Your task to perform on an android device: set the stopwatch Image 0: 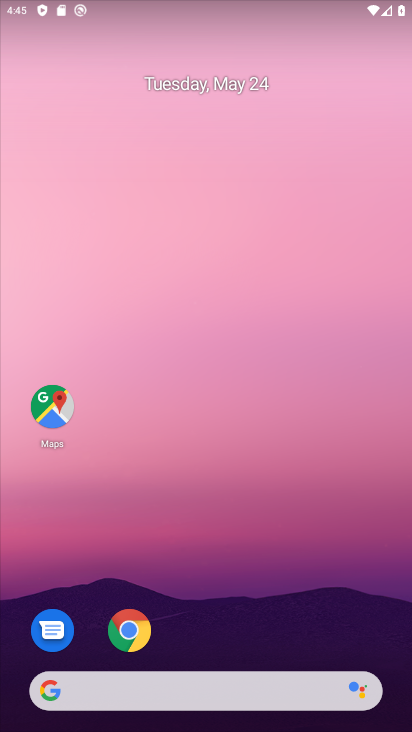
Step 0: drag from (217, 642) to (238, 123)
Your task to perform on an android device: set the stopwatch Image 1: 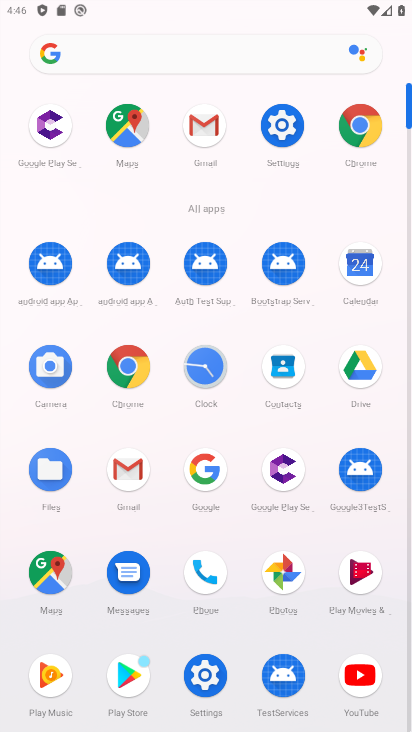
Step 1: click (206, 369)
Your task to perform on an android device: set the stopwatch Image 2: 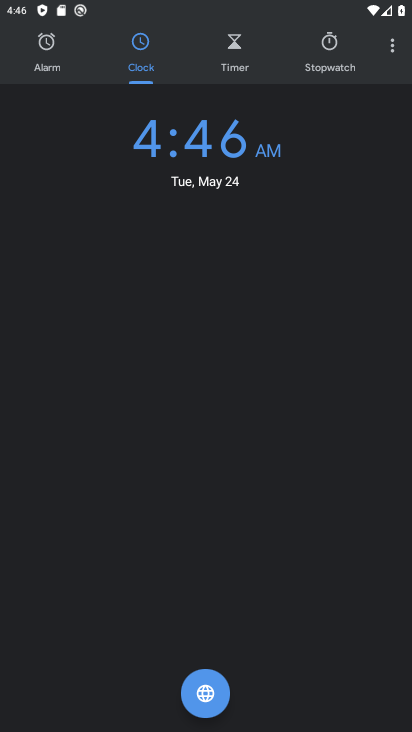
Step 2: click (336, 45)
Your task to perform on an android device: set the stopwatch Image 3: 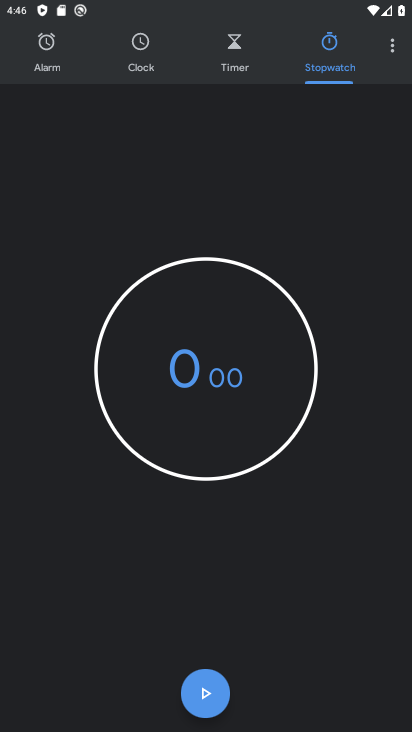
Step 3: click (209, 698)
Your task to perform on an android device: set the stopwatch Image 4: 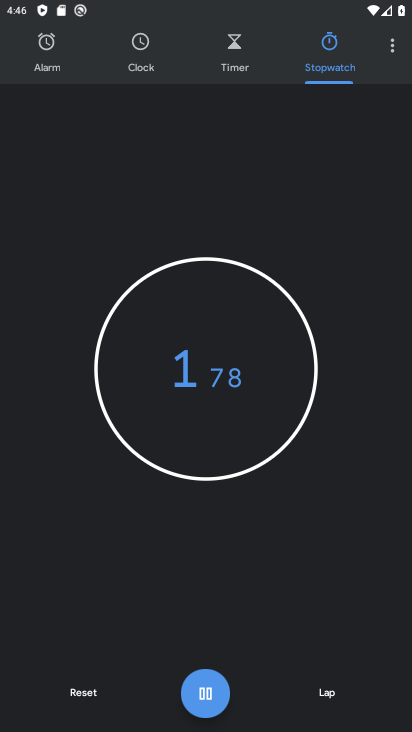
Step 4: task complete